Your task to perform on an android device: Go to Yahoo.com Image 0: 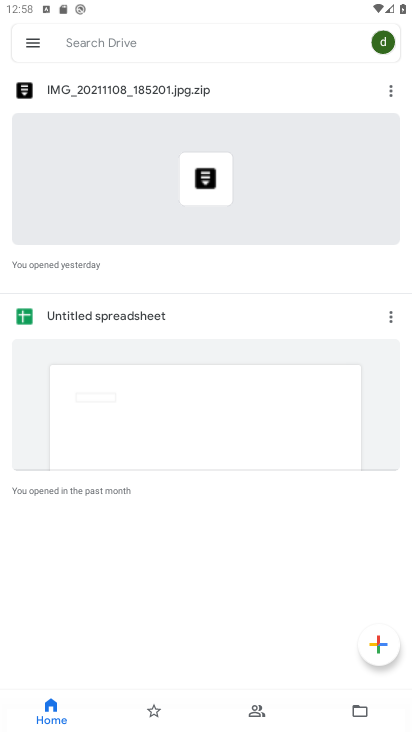
Step 0: press home button
Your task to perform on an android device: Go to Yahoo.com Image 1: 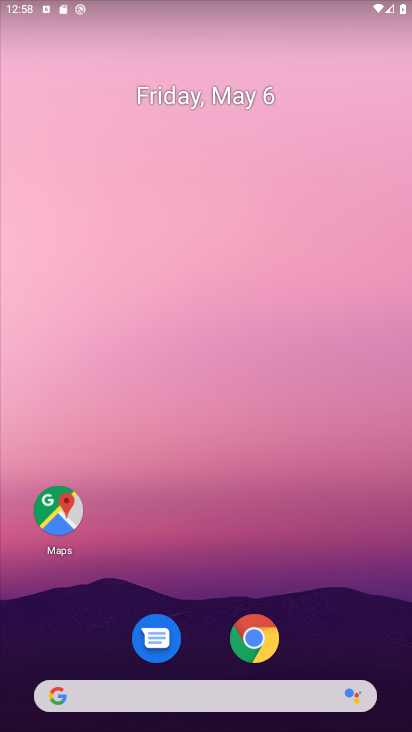
Step 1: drag from (321, 646) to (317, 93)
Your task to perform on an android device: Go to Yahoo.com Image 2: 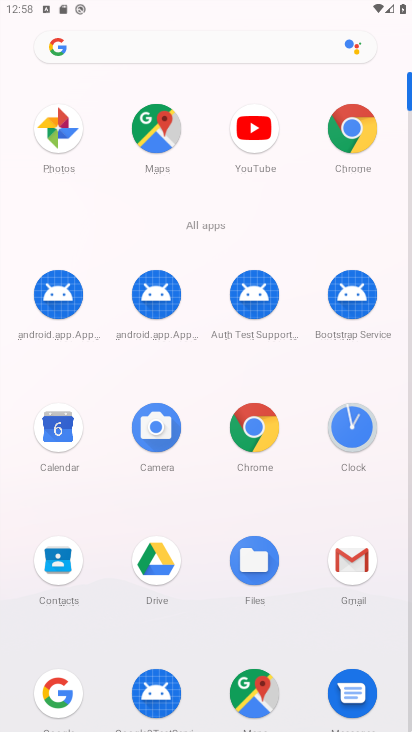
Step 2: click (247, 424)
Your task to perform on an android device: Go to Yahoo.com Image 3: 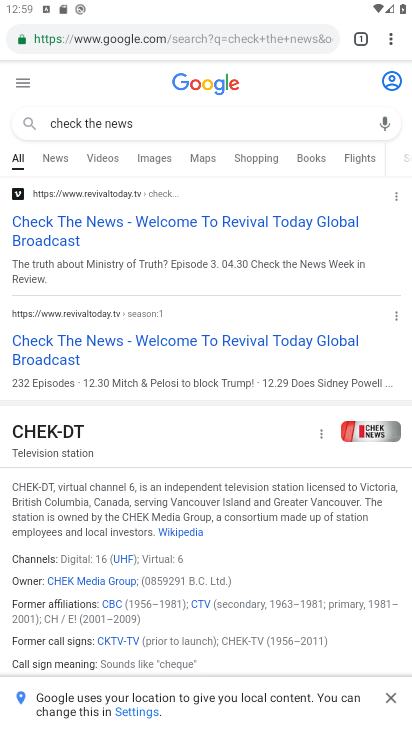
Step 3: click (233, 31)
Your task to perform on an android device: Go to Yahoo.com Image 4: 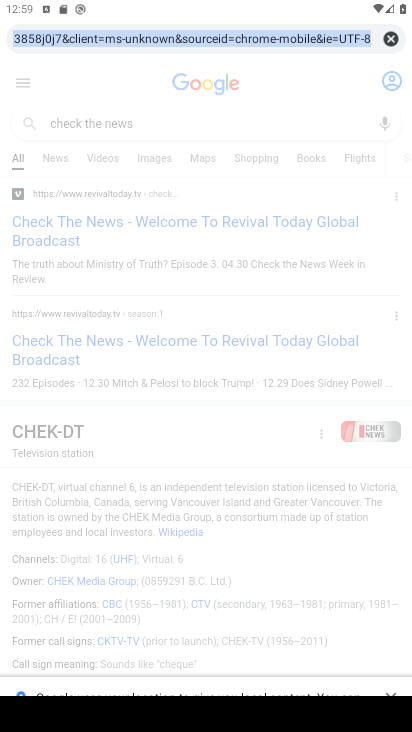
Step 4: click (390, 33)
Your task to perform on an android device: Go to Yahoo.com Image 5: 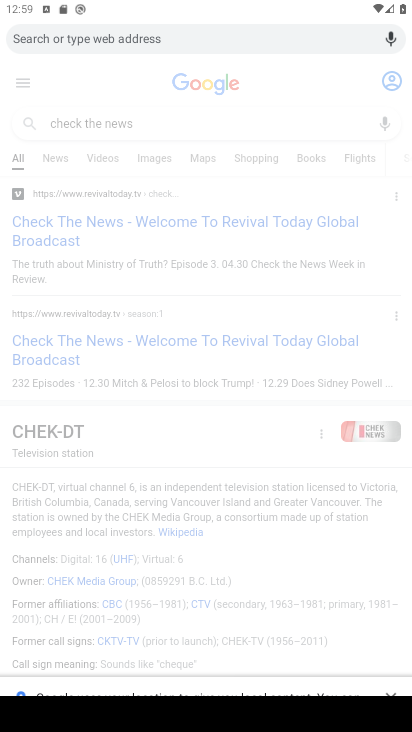
Step 5: type "yahoo.com"
Your task to perform on an android device: Go to Yahoo.com Image 6: 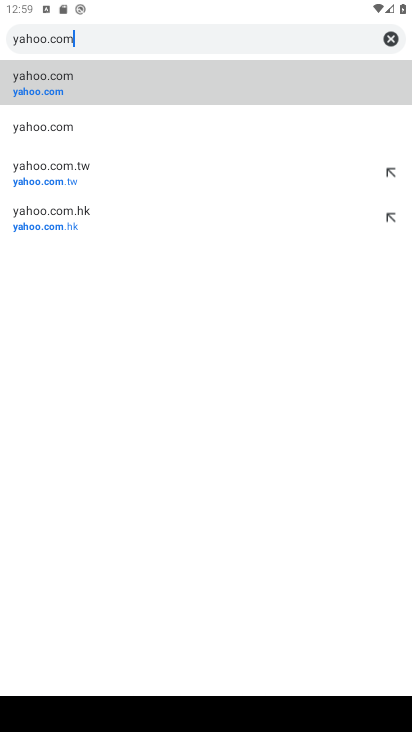
Step 6: click (173, 80)
Your task to perform on an android device: Go to Yahoo.com Image 7: 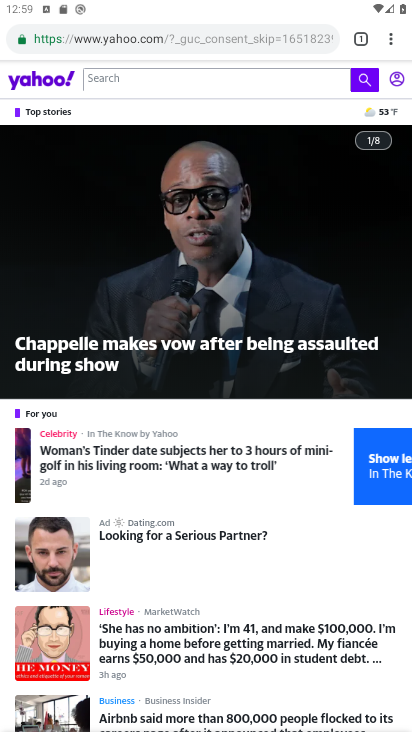
Step 7: task complete